Your task to perform on an android device: Do I have any events this weekend? Image 0: 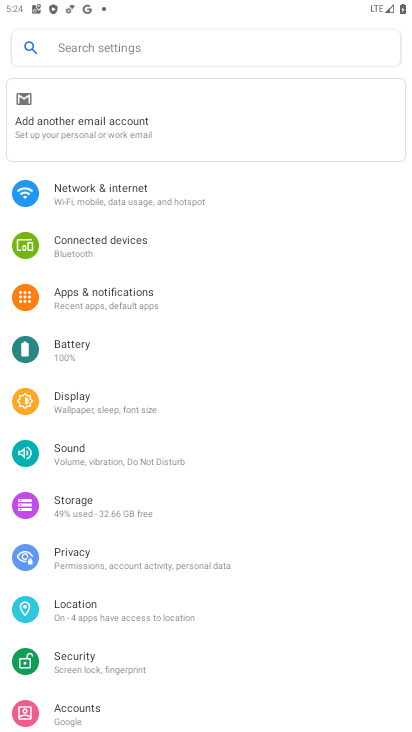
Step 0: press back button
Your task to perform on an android device: Do I have any events this weekend? Image 1: 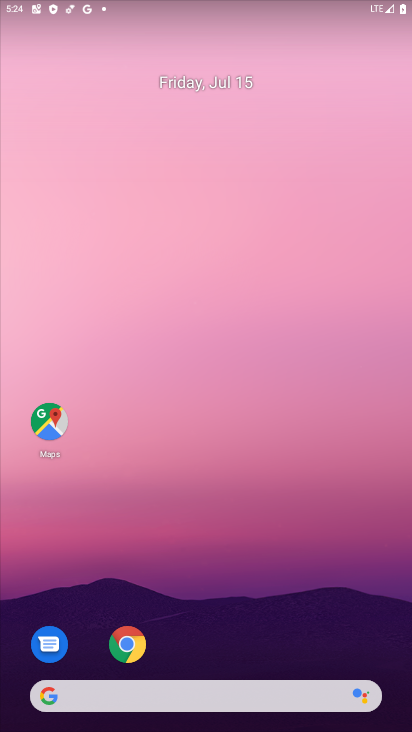
Step 1: drag from (193, 648) to (142, 92)
Your task to perform on an android device: Do I have any events this weekend? Image 2: 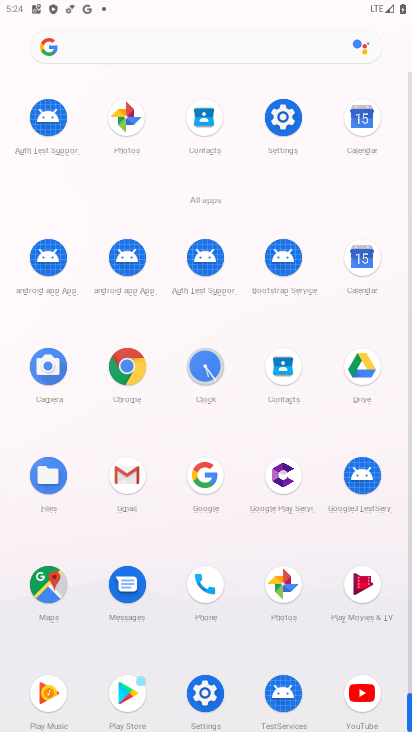
Step 2: click (362, 267)
Your task to perform on an android device: Do I have any events this weekend? Image 3: 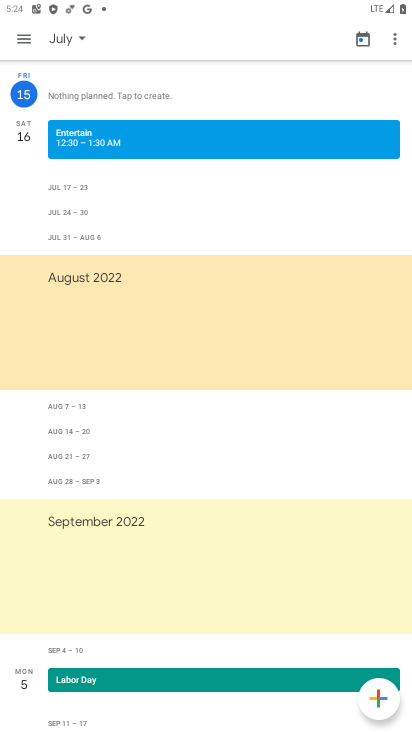
Step 3: task complete